Your task to perform on an android device: make emails show in primary in the gmail app Image 0: 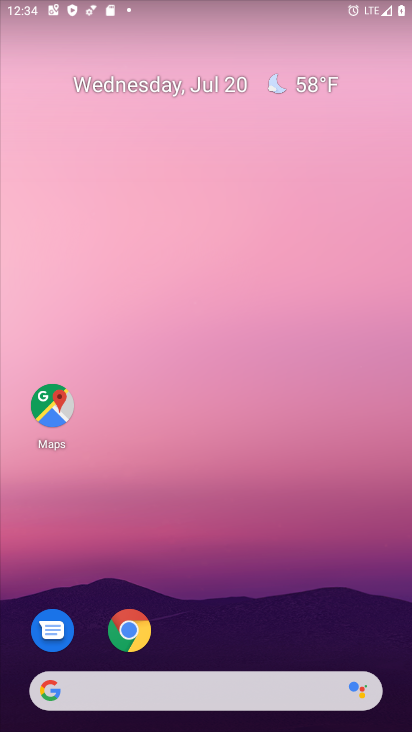
Step 0: drag from (218, 712) to (273, 190)
Your task to perform on an android device: make emails show in primary in the gmail app Image 1: 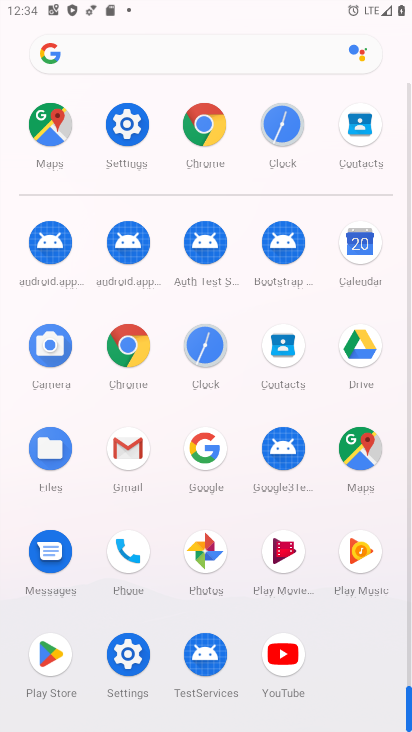
Step 1: click (124, 480)
Your task to perform on an android device: make emails show in primary in the gmail app Image 2: 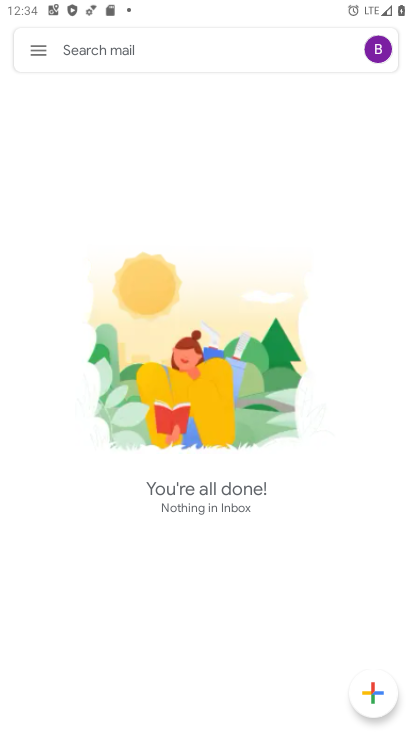
Step 2: click (39, 60)
Your task to perform on an android device: make emails show in primary in the gmail app Image 3: 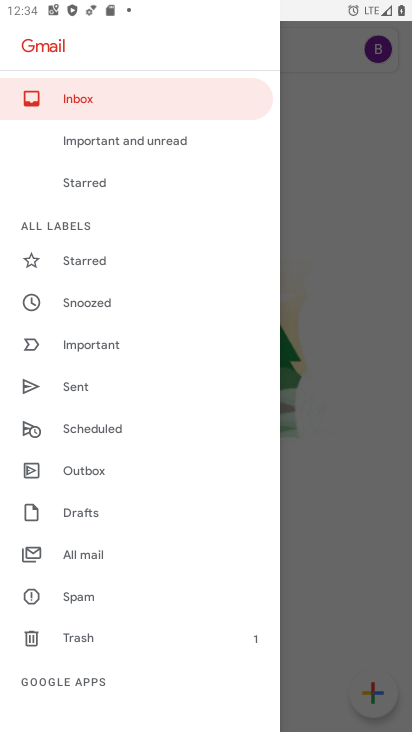
Step 3: drag from (114, 581) to (179, 256)
Your task to perform on an android device: make emails show in primary in the gmail app Image 4: 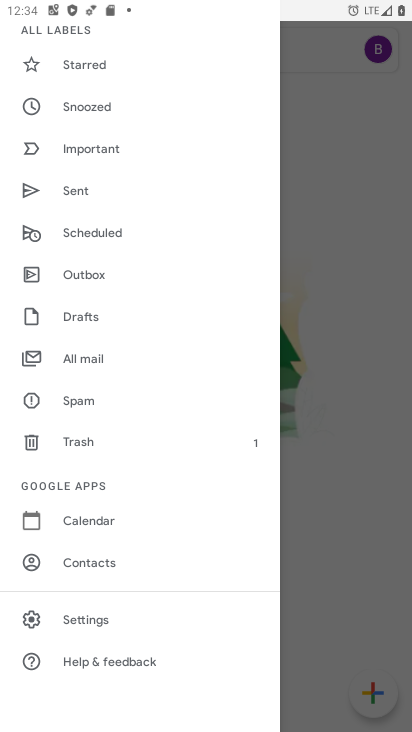
Step 4: click (77, 359)
Your task to perform on an android device: make emails show in primary in the gmail app Image 5: 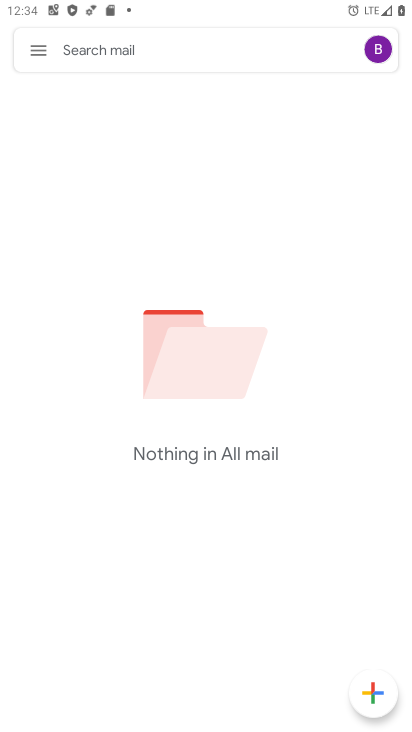
Step 5: task complete